Your task to perform on an android device: Show me the alarms in the clock app Image 0: 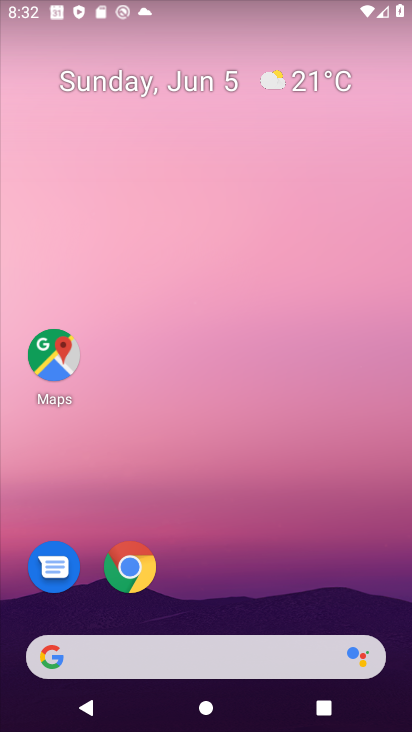
Step 0: drag from (184, 638) to (256, 115)
Your task to perform on an android device: Show me the alarms in the clock app Image 1: 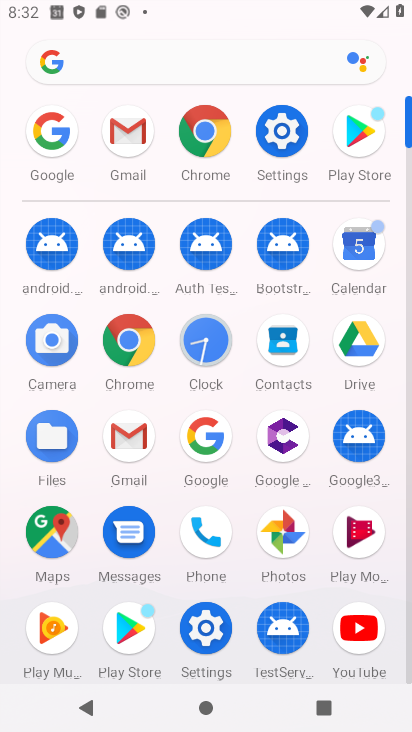
Step 1: click (192, 336)
Your task to perform on an android device: Show me the alarms in the clock app Image 2: 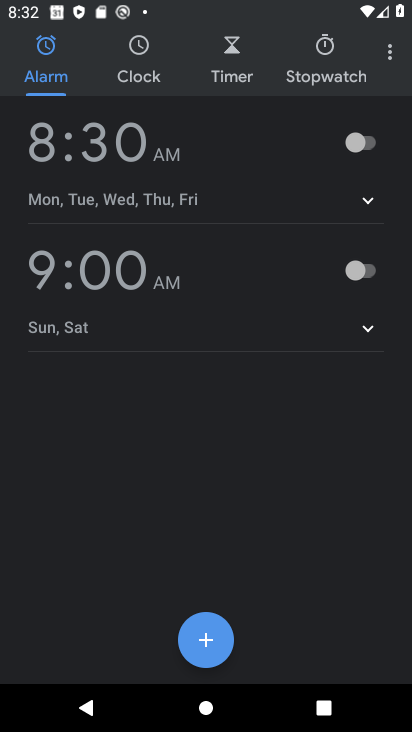
Step 2: task complete